Your task to perform on an android device: add a contact Image 0: 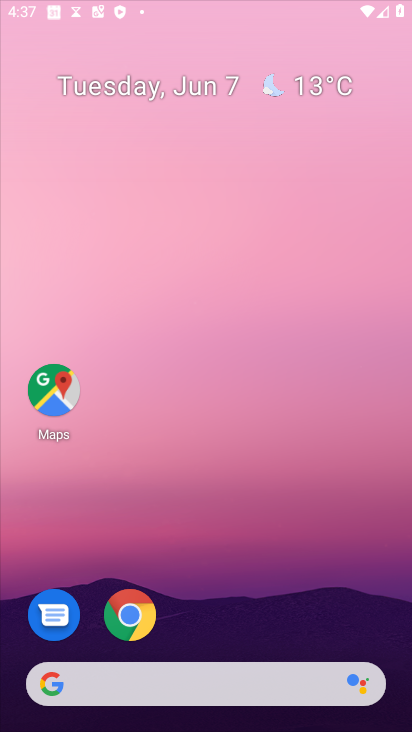
Step 0: click (153, 142)
Your task to perform on an android device: add a contact Image 1: 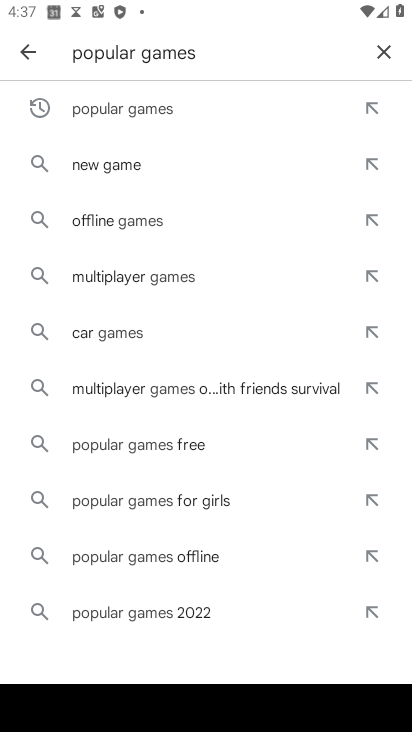
Step 1: press back button
Your task to perform on an android device: add a contact Image 2: 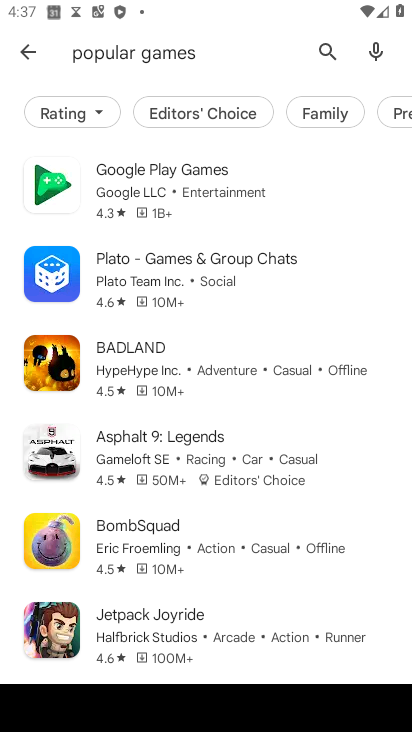
Step 2: click (20, 42)
Your task to perform on an android device: add a contact Image 3: 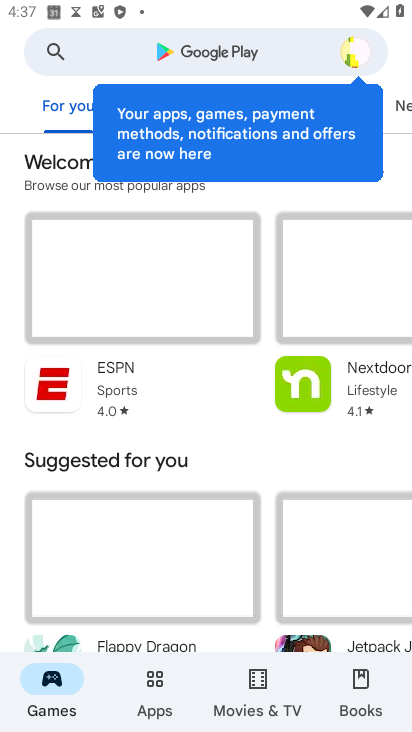
Step 3: press home button
Your task to perform on an android device: add a contact Image 4: 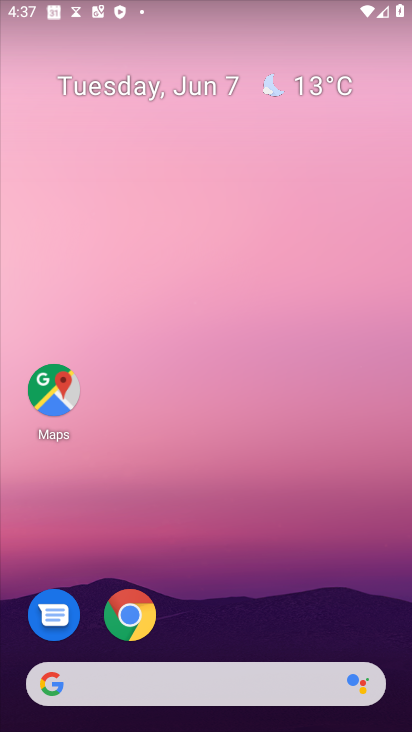
Step 4: drag from (231, 676) to (124, 31)
Your task to perform on an android device: add a contact Image 5: 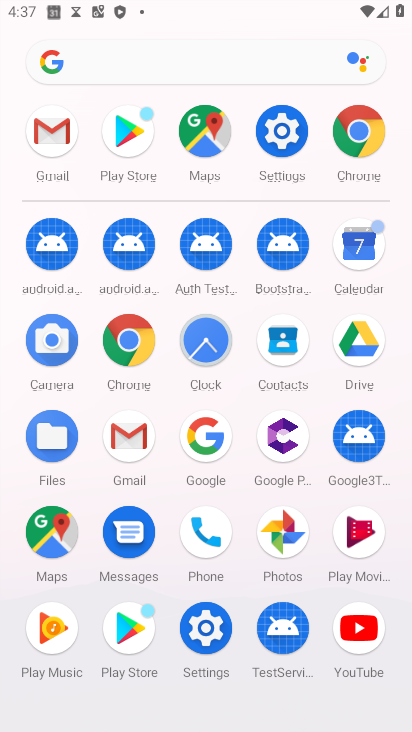
Step 5: click (275, 337)
Your task to perform on an android device: add a contact Image 6: 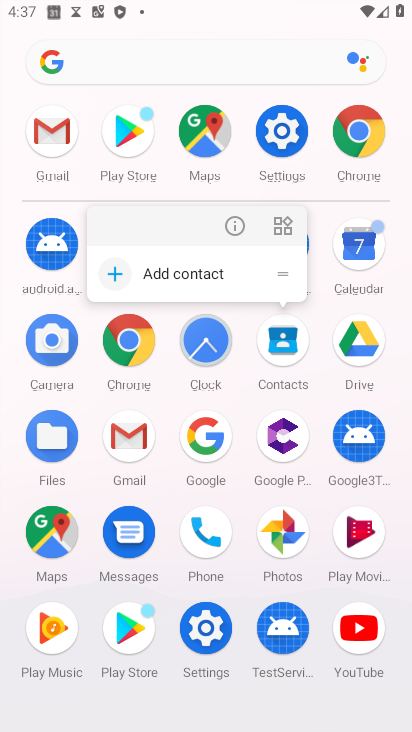
Step 6: click (180, 269)
Your task to perform on an android device: add a contact Image 7: 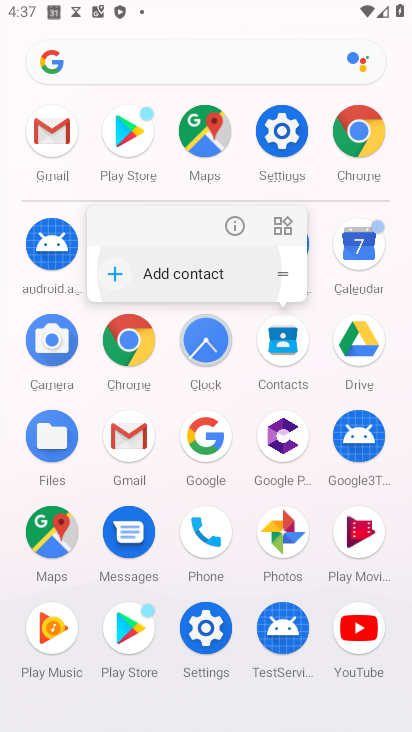
Step 7: click (180, 269)
Your task to perform on an android device: add a contact Image 8: 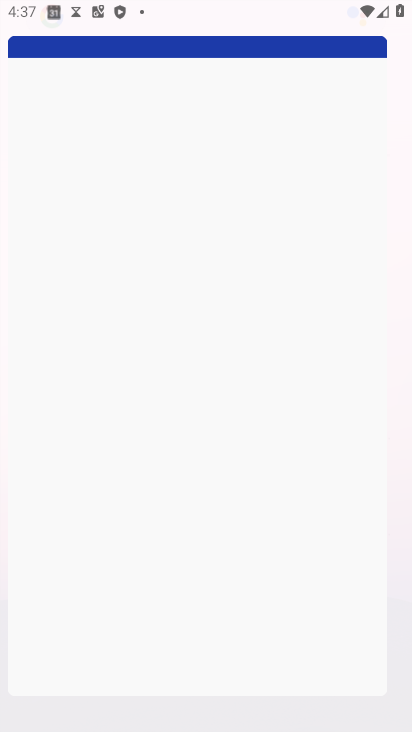
Step 8: click (180, 269)
Your task to perform on an android device: add a contact Image 9: 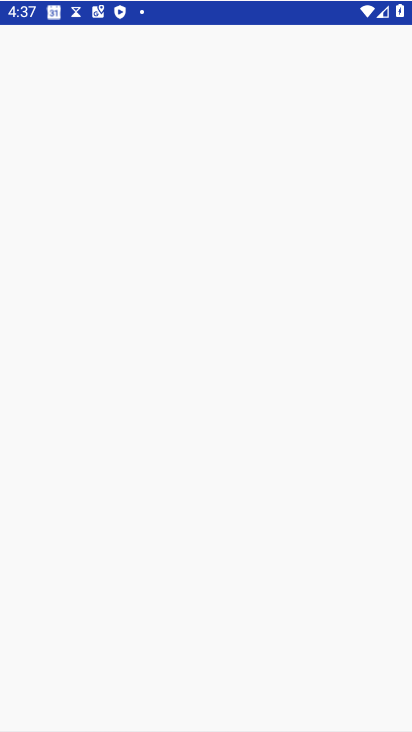
Step 9: click (180, 269)
Your task to perform on an android device: add a contact Image 10: 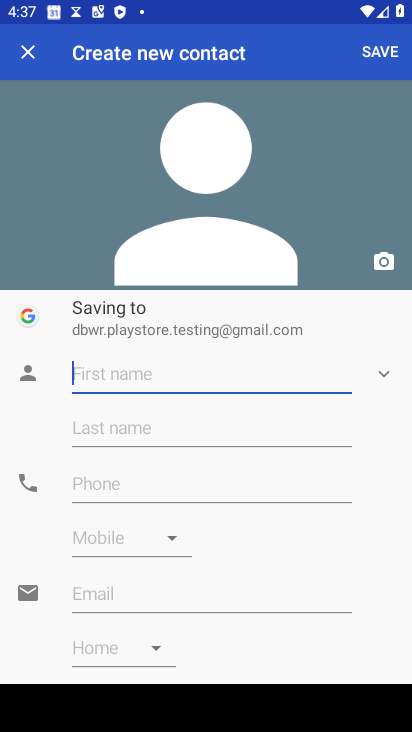
Step 10: type "xc jbcx bj"
Your task to perform on an android device: add a contact Image 11: 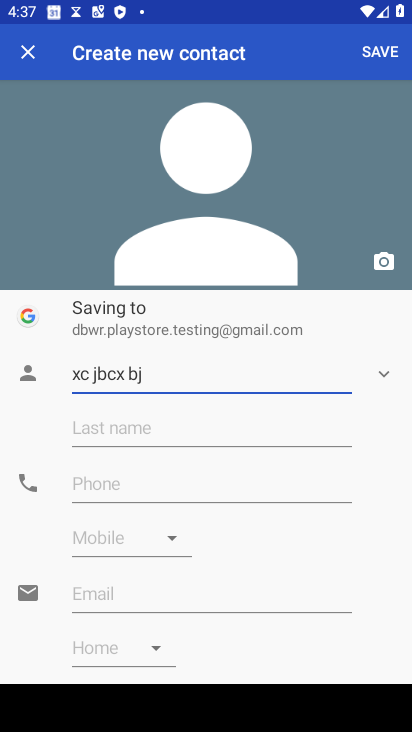
Step 11: click (99, 487)
Your task to perform on an android device: add a contact Image 12: 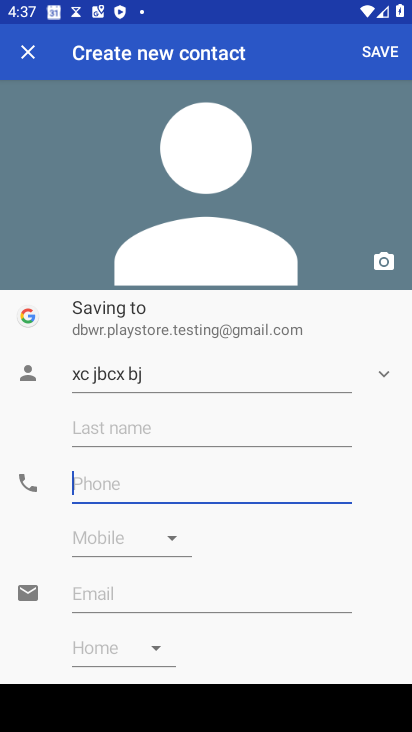
Step 12: click (99, 487)
Your task to perform on an android device: add a contact Image 13: 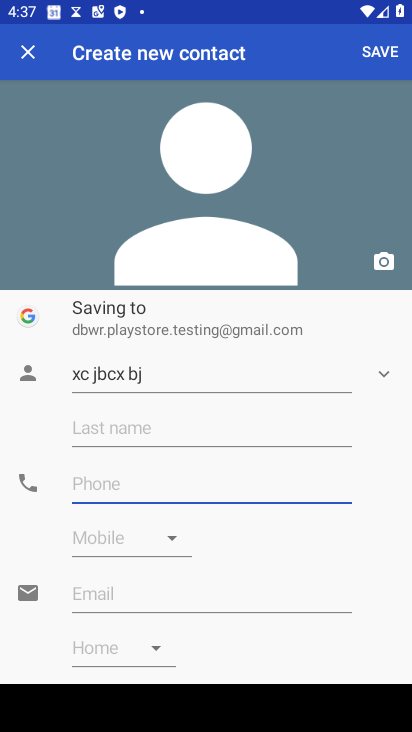
Step 13: click (99, 487)
Your task to perform on an android device: add a contact Image 14: 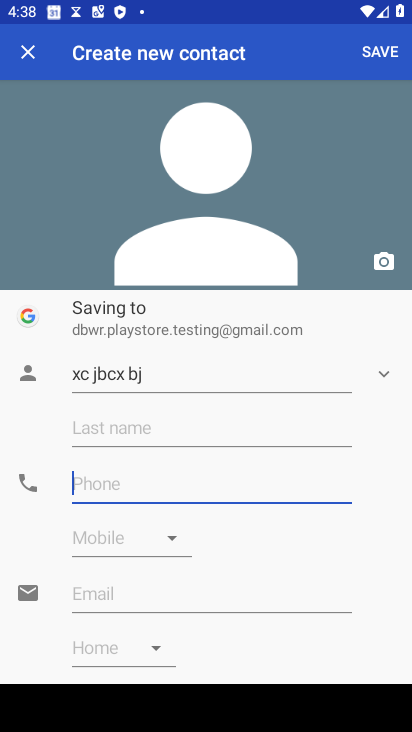
Step 14: type "5674236836387"
Your task to perform on an android device: add a contact Image 15: 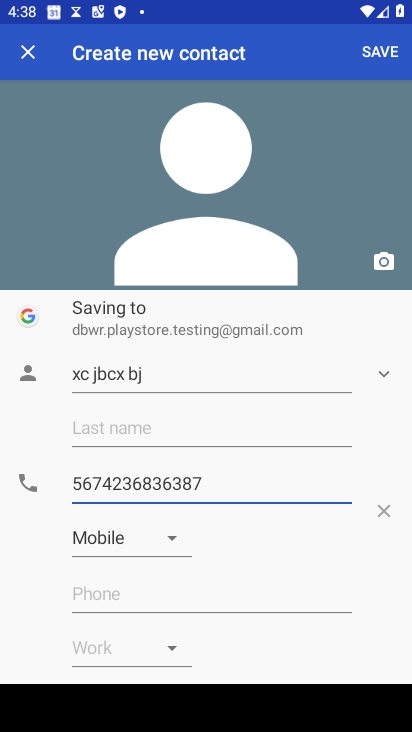
Step 15: click (377, 38)
Your task to perform on an android device: add a contact Image 16: 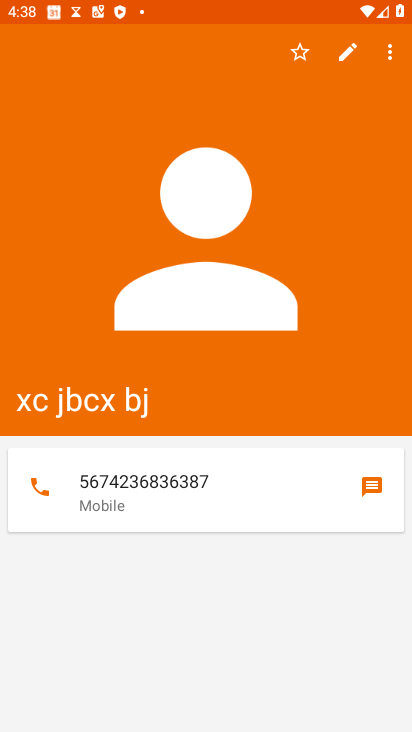
Step 16: task complete